Your task to perform on an android device: delete browsing data in the chrome app Image 0: 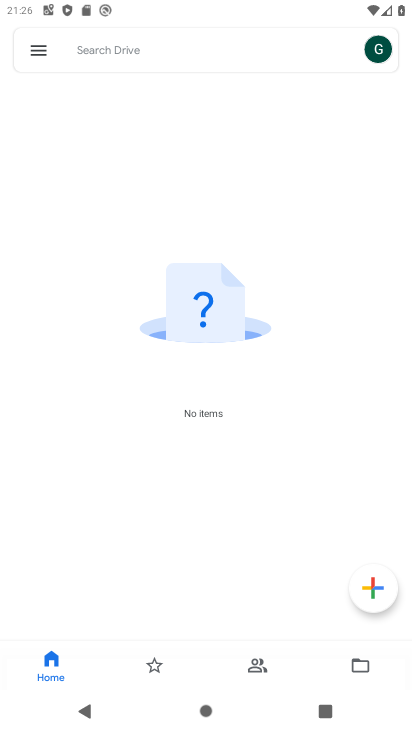
Step 0: press home button
Your task to perform on an android device: delete browsing data in the chrome app Image 1: 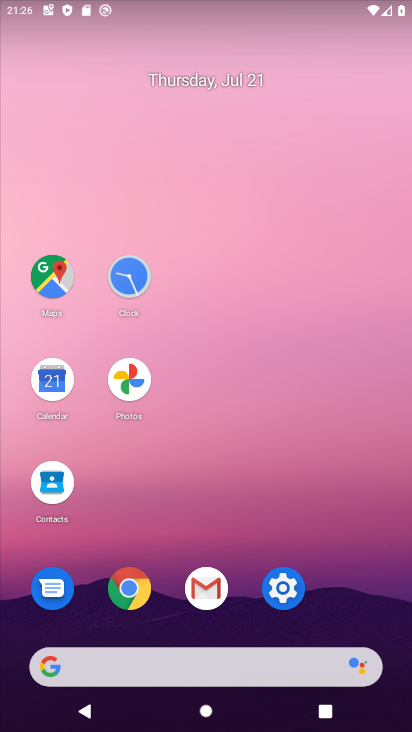
Step 1: click (130, 589)
Your task to perform on an android device: delete browsing data in the chrome app Image 2: 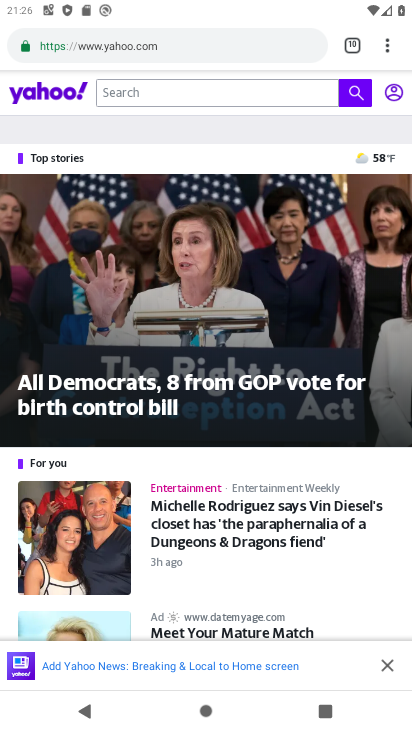
Step 2: click (390, 40)
Your task to perform on an android device: delete browsing data in the chrome app Image 3: 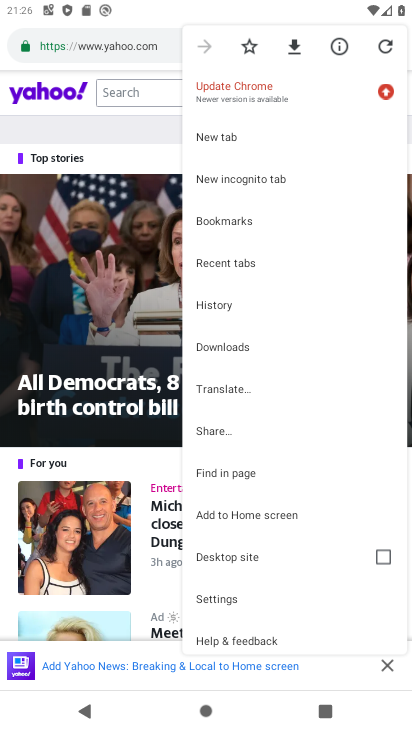
Step 3: click (211, 298)
Your task to perform on an android device: delete browsing data in the chrome app Image 4: 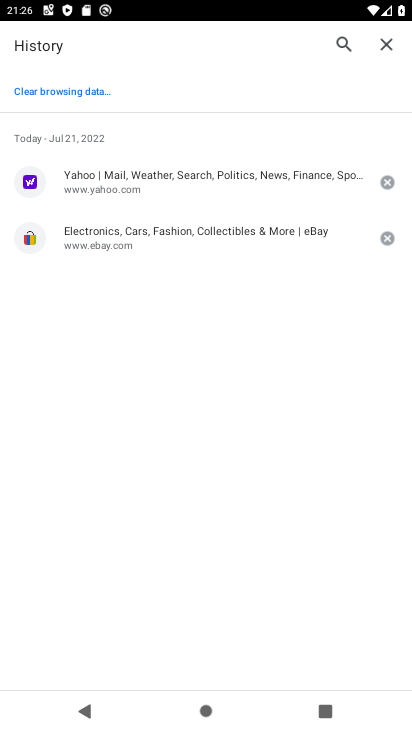
Step 4: click (55, 86)
Your task to perform on an android device: delete browsing data in the chrome app Image 5: 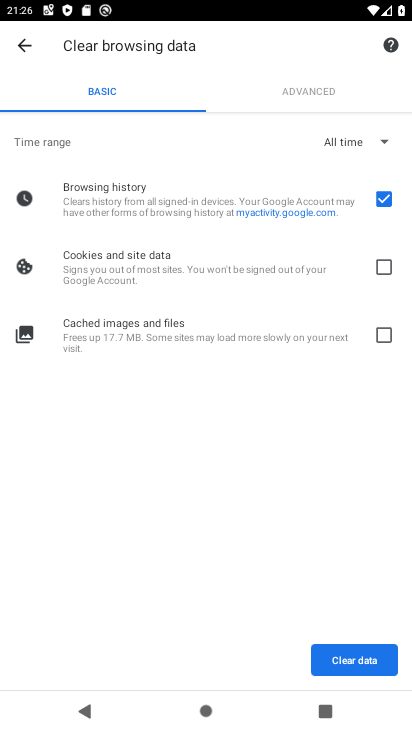
Step 5: click (357, 666)
Your task to perform on an android device: delete browsing data in the chrome app Image 6: 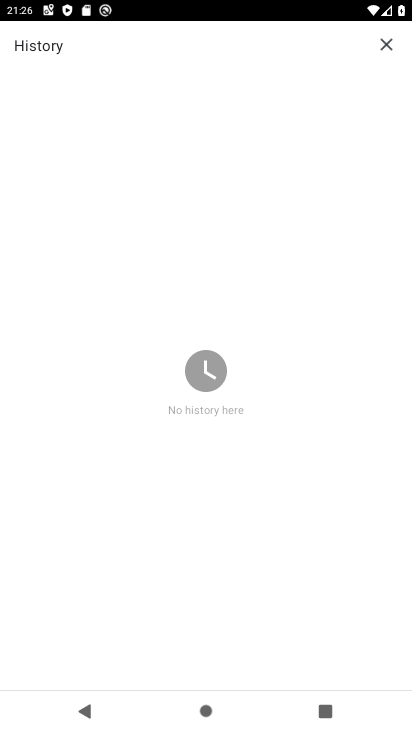
Step 6: task complete